Your task to perform on an android device: open app "Spotify" (install if not already installed) Image 0: 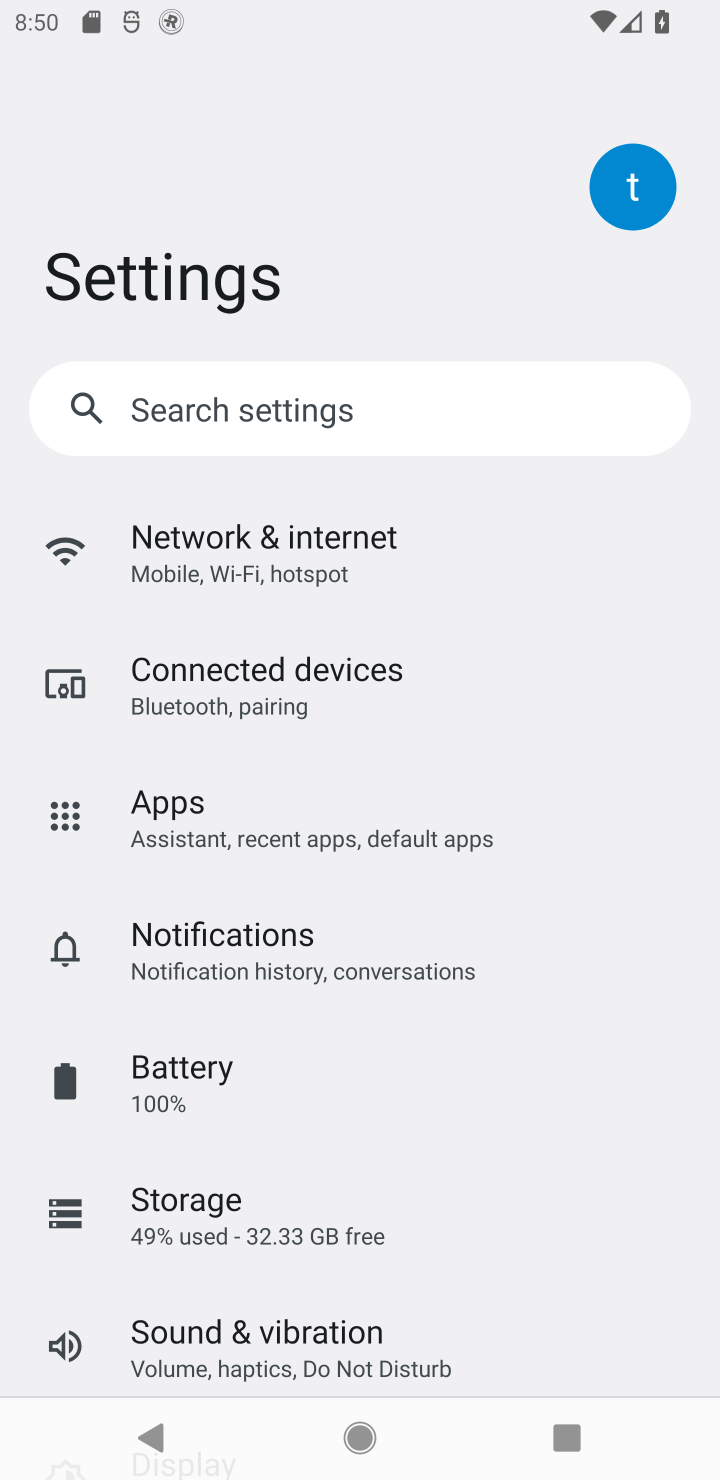
Step 0: press home button
Your task to perform on an android device: open app "Spotify" (install if not already installed) Image 1: 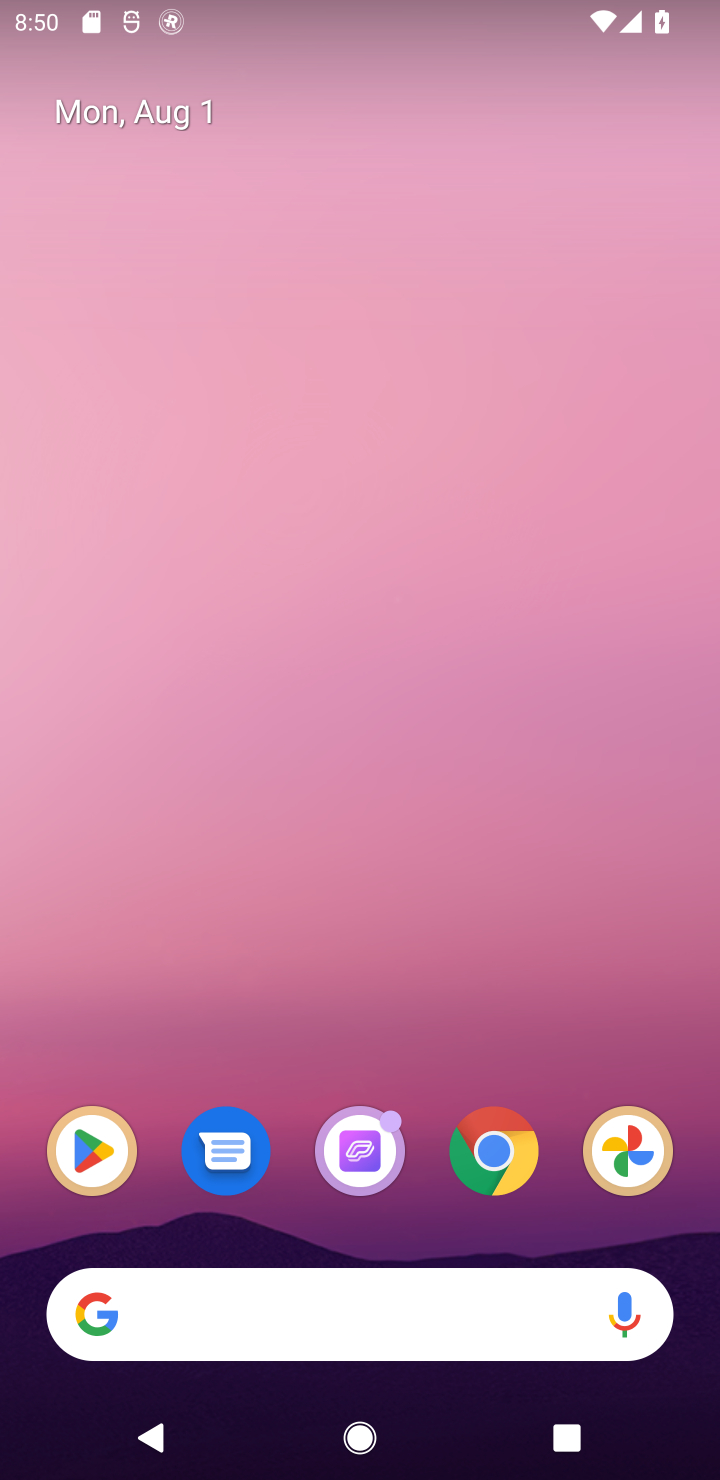
Step 1: click (120, 1135)
Your task to perform on an android device: open app "Spotify" (install if not already installed) Image 2: 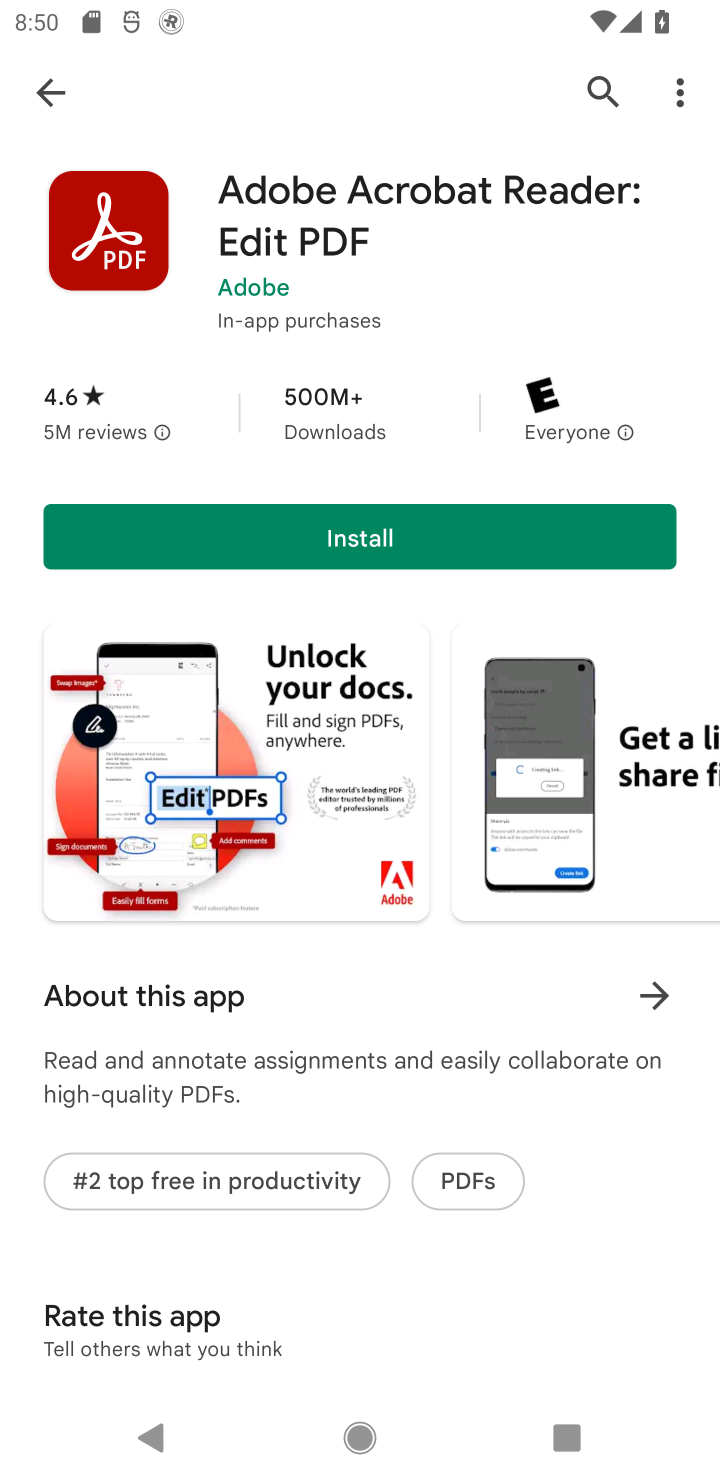
Step 2: click (581, 85)
Your task to perform on an android device: open app "Spotify" (install if not already installed) Image 3: 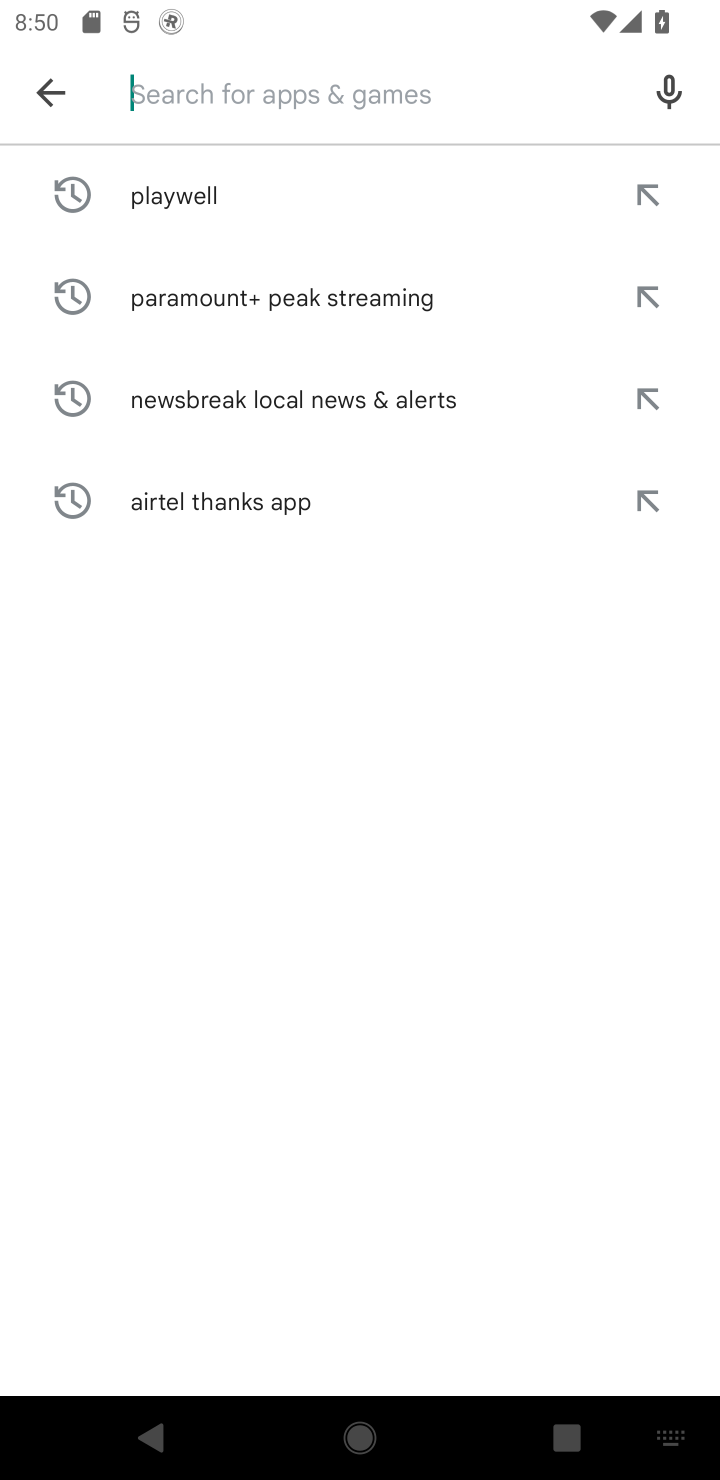
Step 3: type "Spotify"
Your task to perform on an android device: open app "Spotify" (install if not already installed) Image 4: 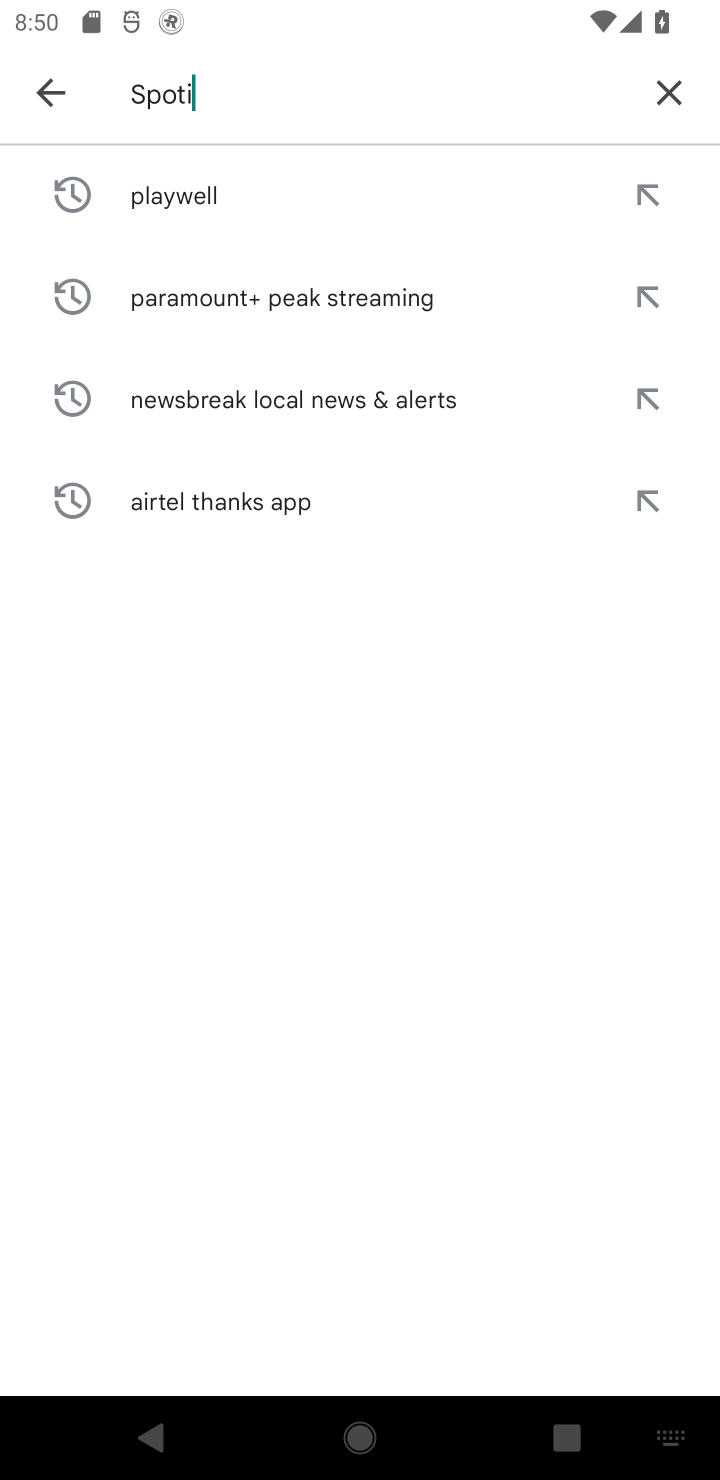
Step 4: type ""
Your task to perform on an android device: open app "Spotify" (install if not already installed) Image 5: 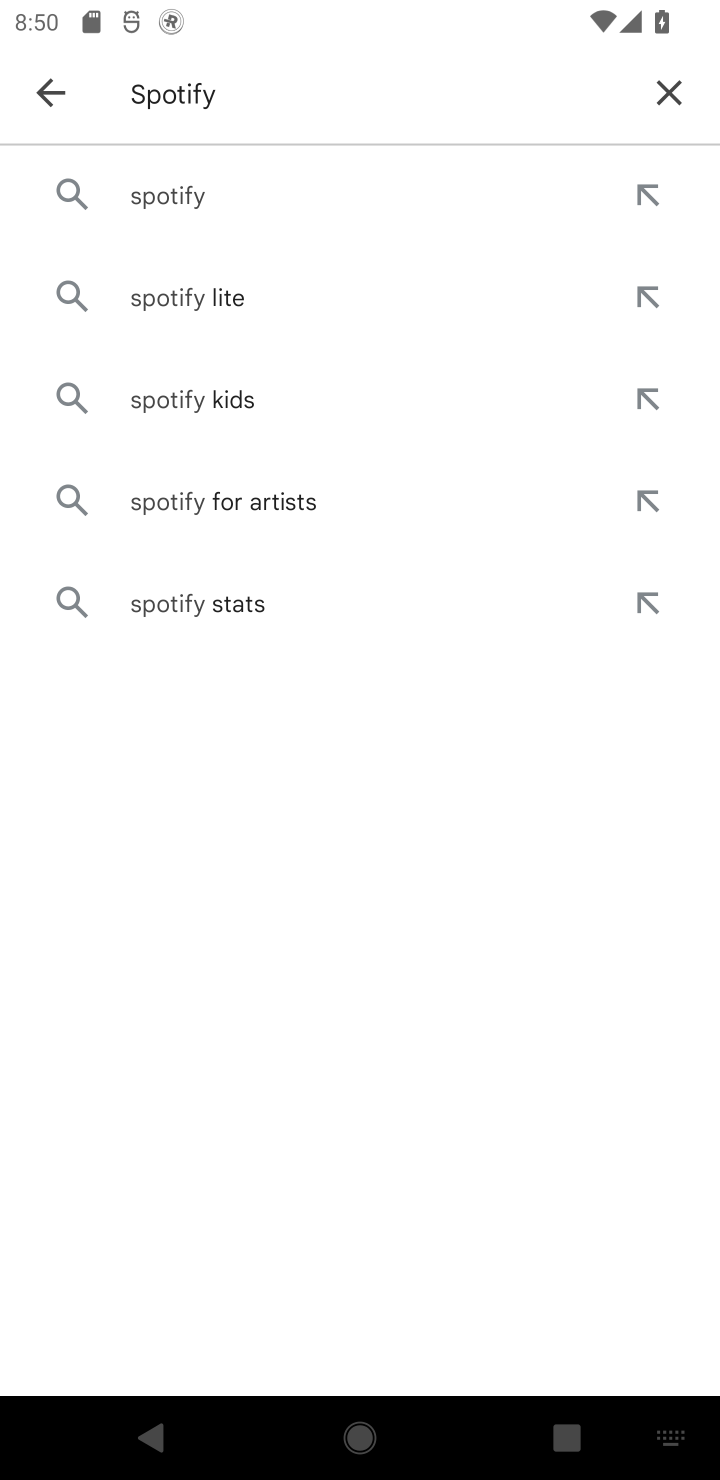
Step 5: click (195, 187)
Your task to perform on an android device: open app "Spotify" (install if not already installed) Image 6: 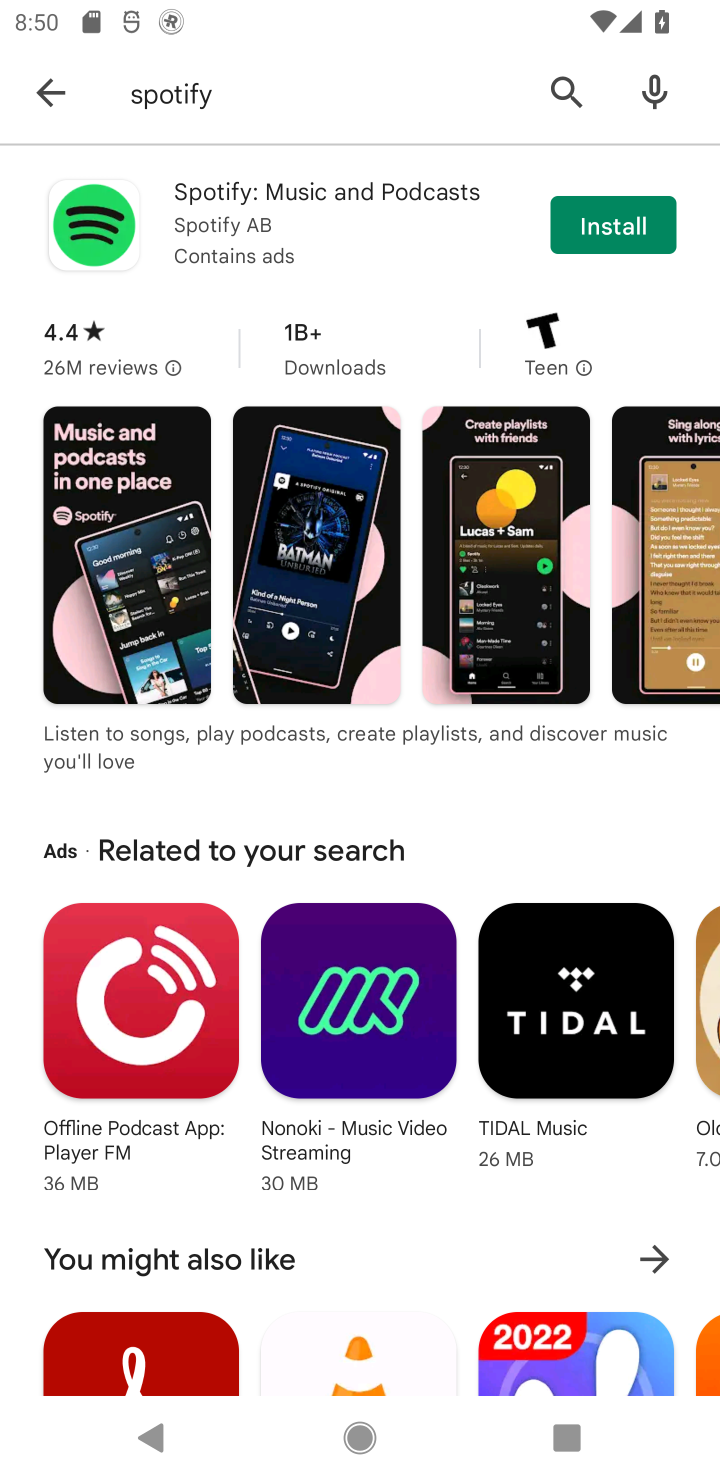
Step 6: click (627, 243)
Your task to perform on an android device: open app "Spotify" (install if not already installed) Image 7: 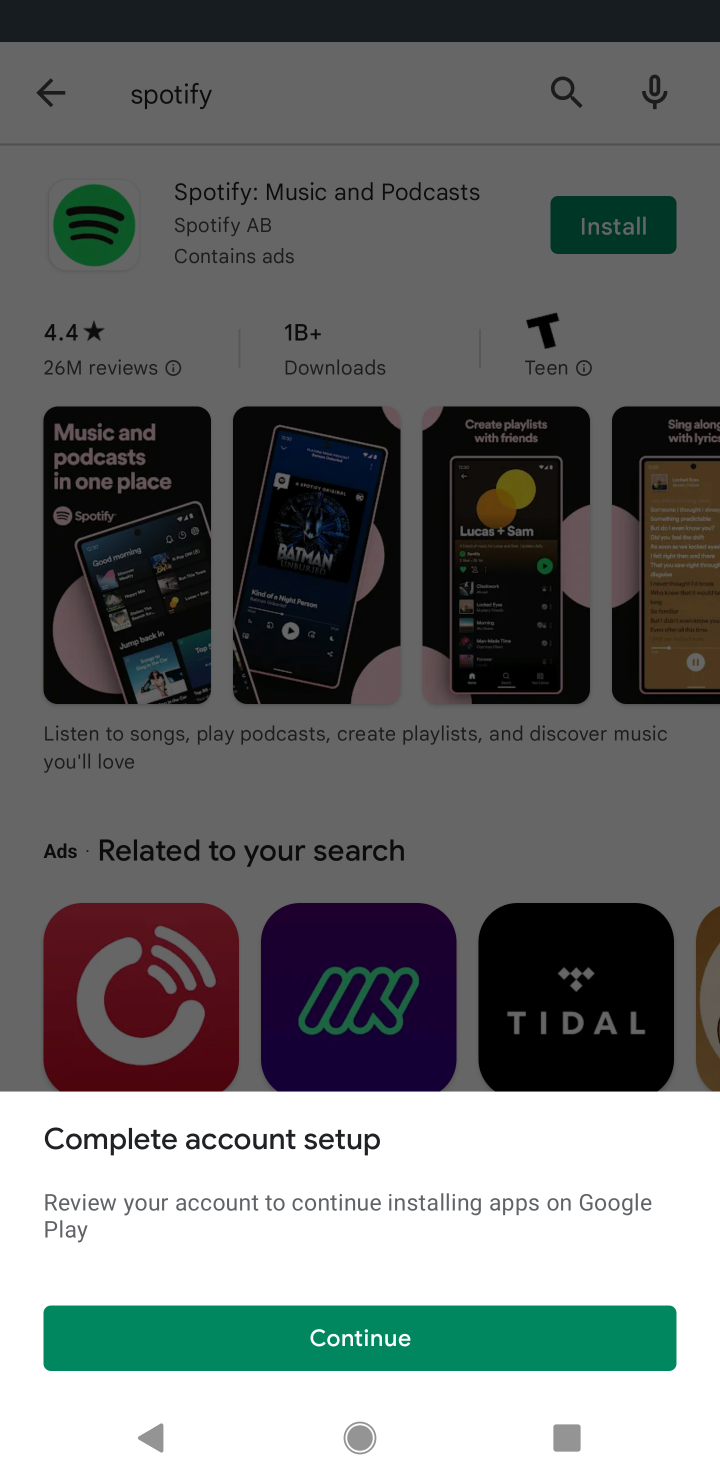
Step 7: click (384, 1346)
Your task to perform on an android device: open app "Spotify" (install if not already installed) Image 8: 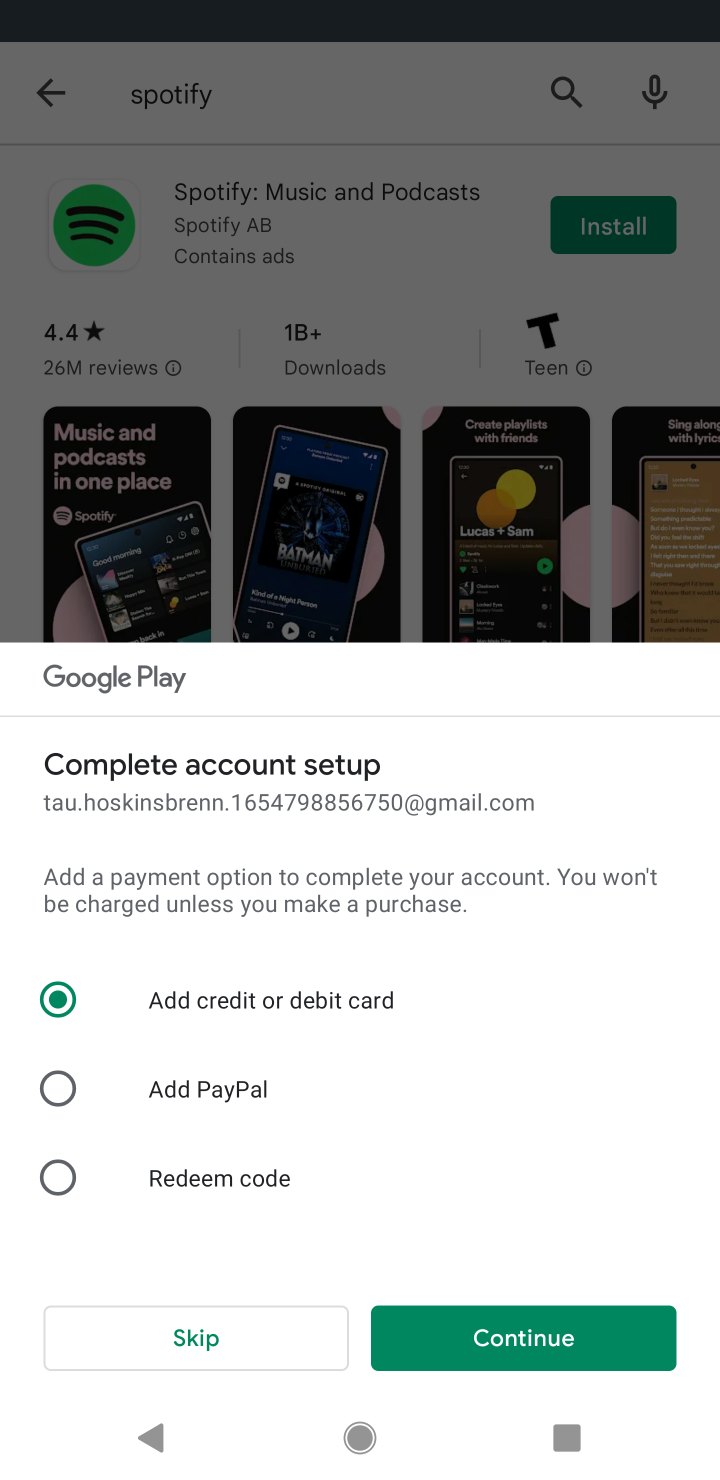
Step 8: click (246, 1352)
Your task to perform on an android device: open app "Spotify" (install if not already installed) Image 9: 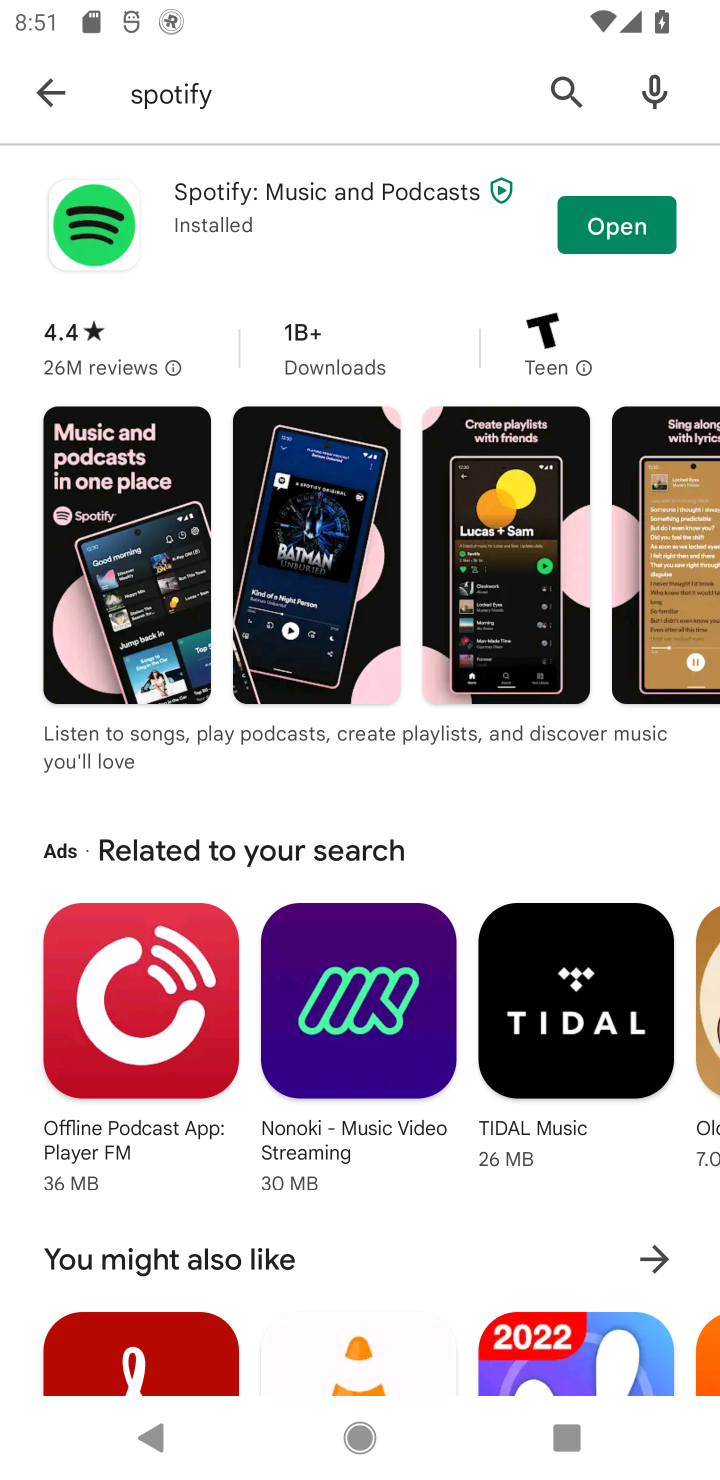
Step 9: click (625, 215)
Your task to perform on an android device: open app "Spotify" (install if not already installed) Image 10: 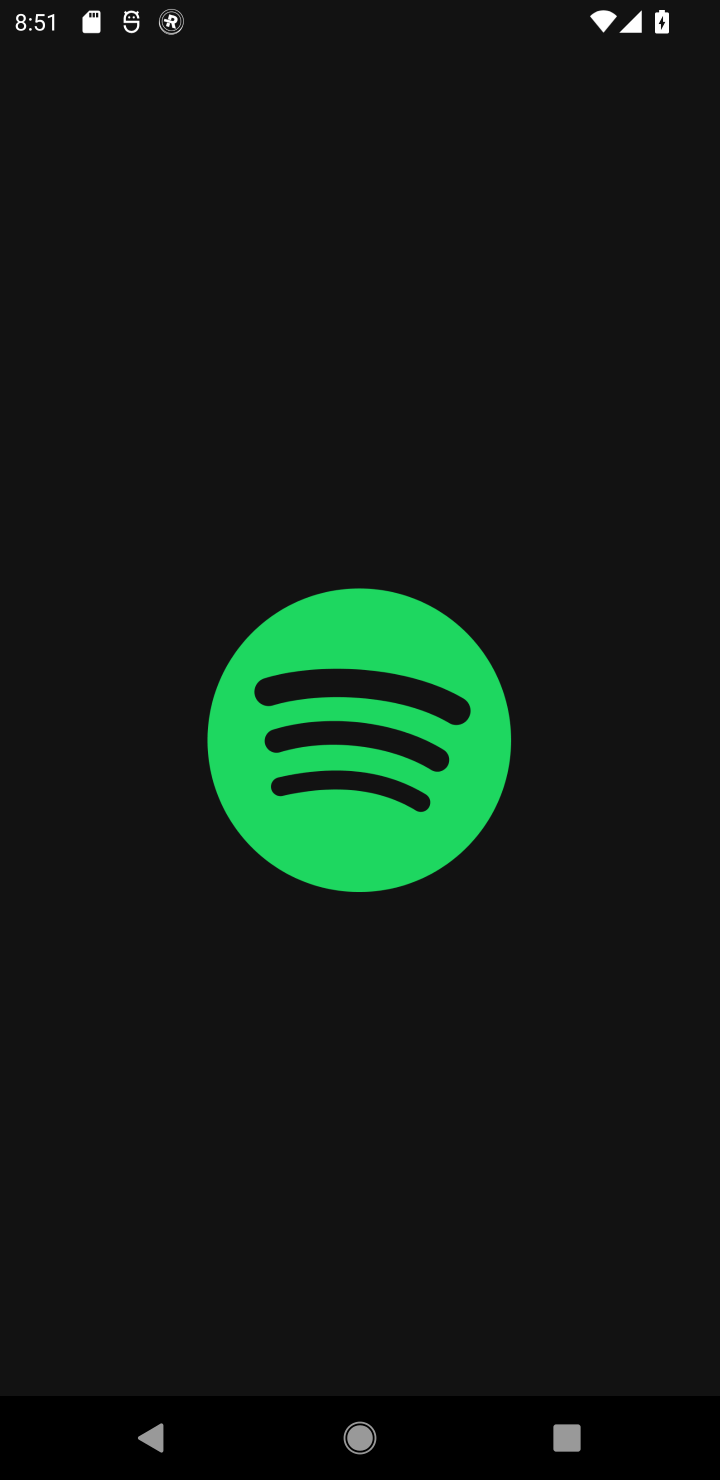
Step 10: task complete